Your task to perform on an android device: allow cookies in the chrome app Image 0: 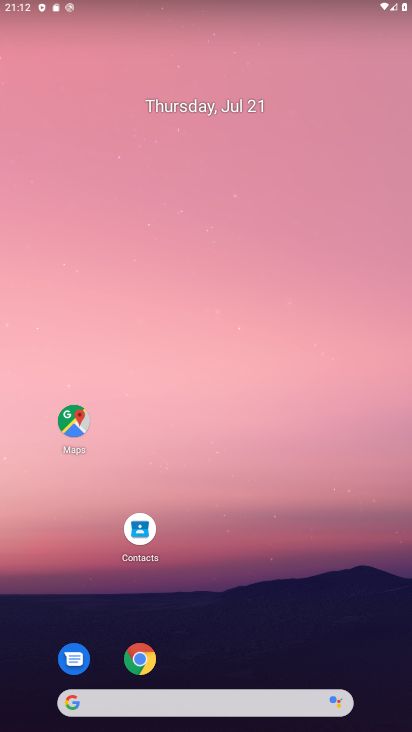
Step 0: drag from (258, 697) to (281, 615)
Your task to perform on an android device: allow cookies in the chrome app Image 1: 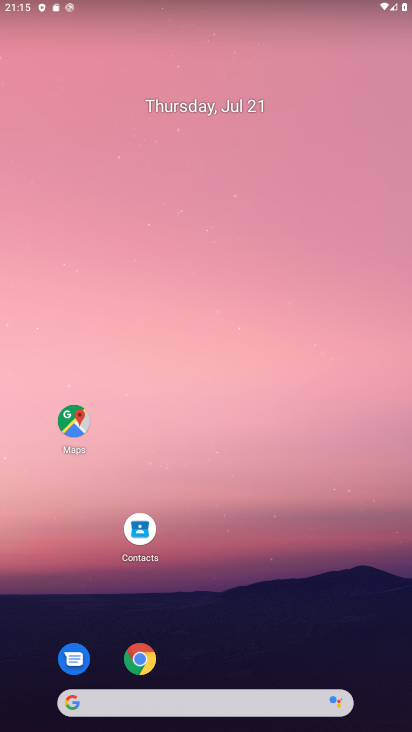
Step 1: drag from (192, 688) to (214, 47)
Your task to perform on an android device: allow cookies in the chrome app Image 2: 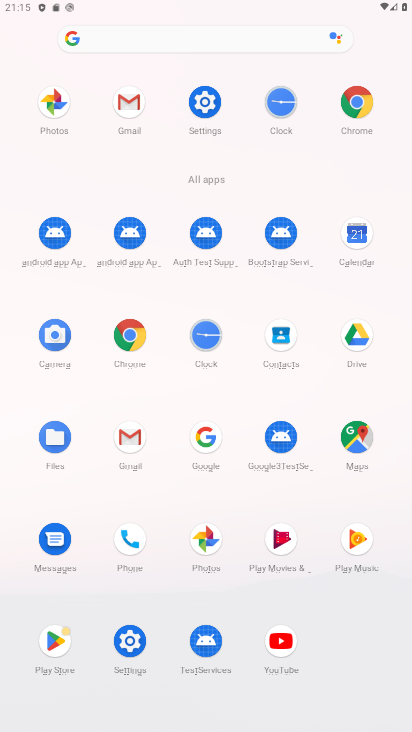
Step 2: click (131, 334)
Your task to perform on an android device: allow cookies in the chrome app Image 3: 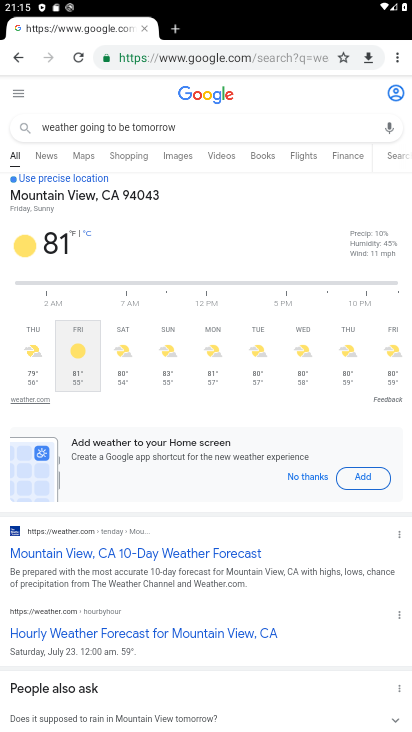
Step 3: drag from (390, 58) to (291, 350)
Your task to perform on an android device: allow cookies in the chrome app Image 4: 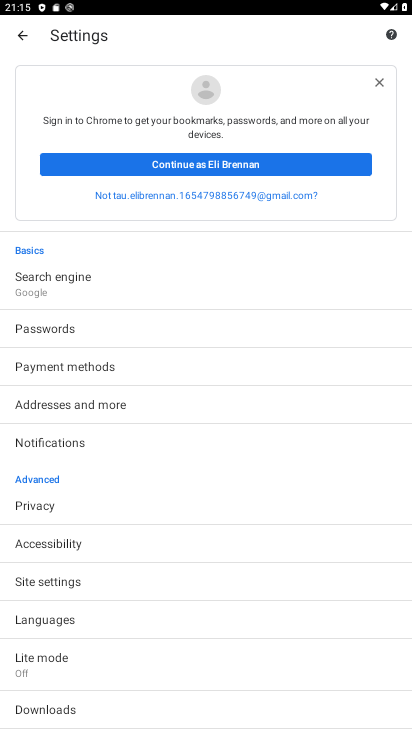
Step 4: click (64, 575)
Your task to perform on an android device: allow cookies in the chrome app Image 5: 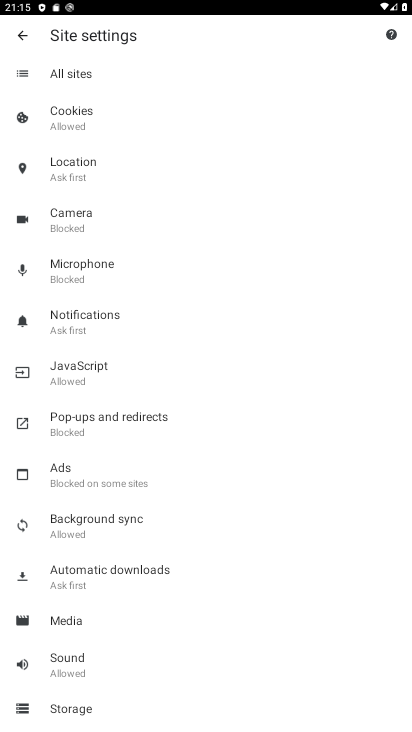
Step 5: task complete